Your task to perform on an android device: Open Google Chrome and click the shortcut for Amazon.com Image 0: 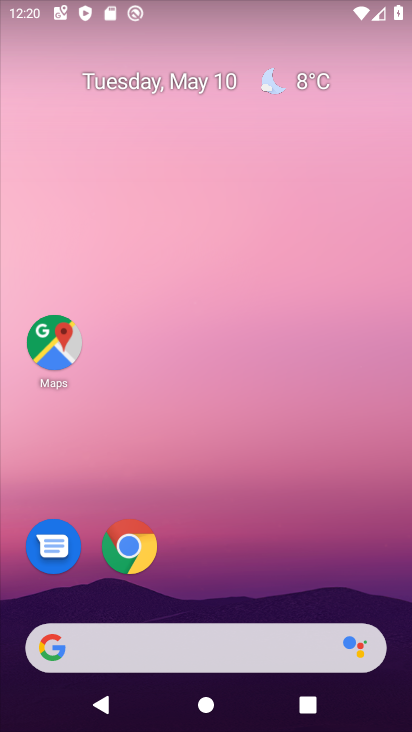
Step 0: drag from (317, 507) to (36, 30)
Your task to perform on an android device: Open Google Chrome and click the shortcut for Amazon.com Image 1: 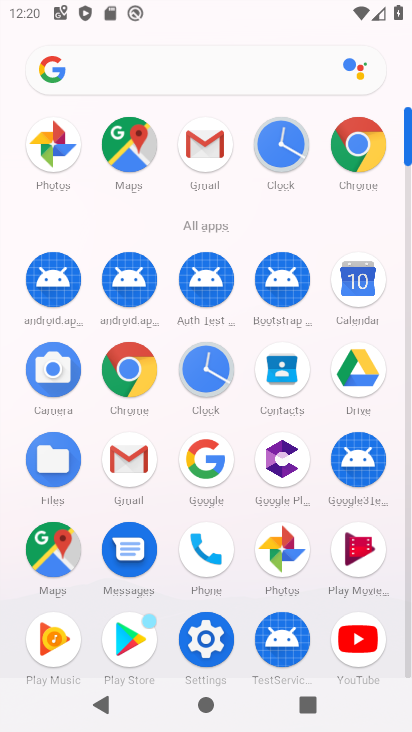
Step 1: click (129, 364)
Your task to perform on an android device: Open Google Chrome and click the shortcut for Amazon.com Image 2: 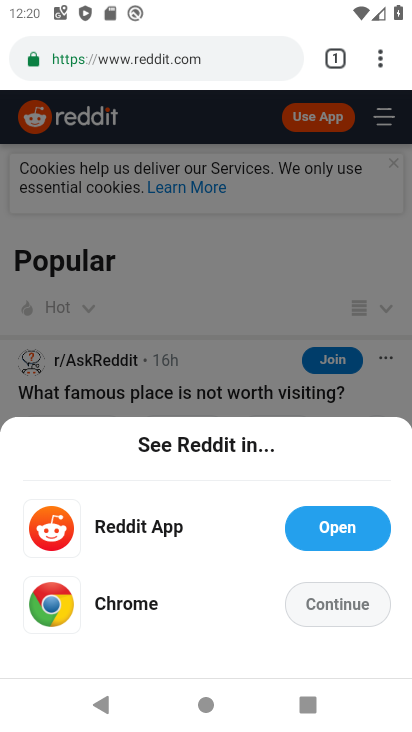
Step 2: click (375, 53)
Your task to perform on an android device: Open Google Chrome and click the shortcut for Amazon.com Image 3: 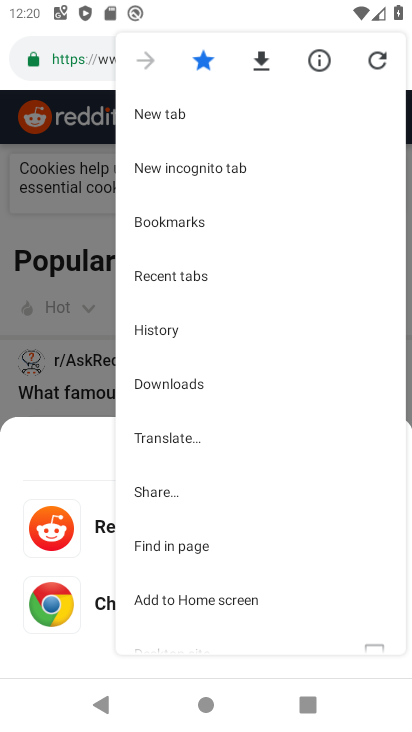
Step 3: click (171, 110)
Your task to perform on an android device: Open Google Chrome and click the shortcut for Amazon.com Image 4: 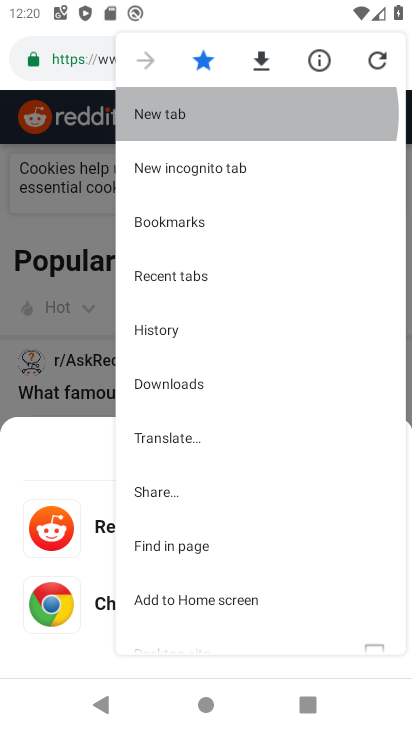
Step 4: click (171, 110)
Your task to perform on an android device: Open Google Chrome and click the shortcut for Amazon.com Image 5: 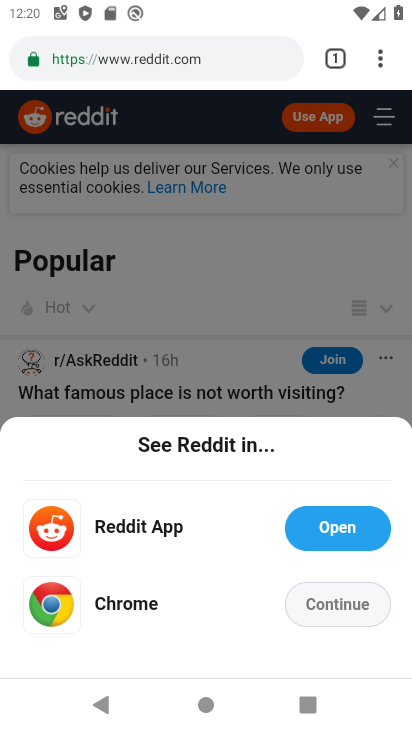
Step 5: click (171, 110)
Your task to perform on an android device: Open Google Chrome and click the shortcut for Amazon.com Image 6: 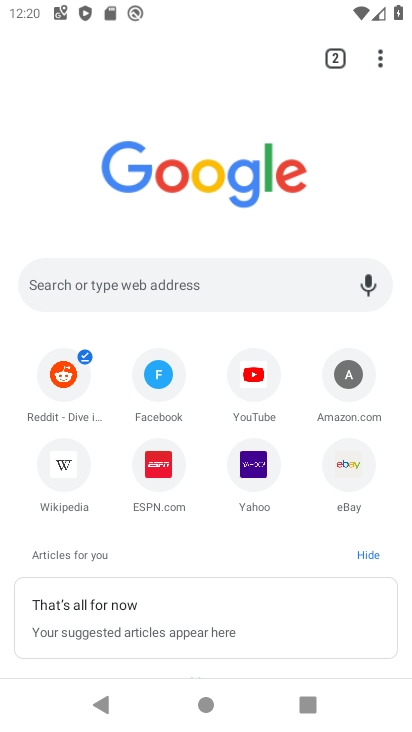
Step 6: click (171, 110)
Your task to perform on an android device: Open Google Chrome and click the shortcut for Amazon.com Image 7: 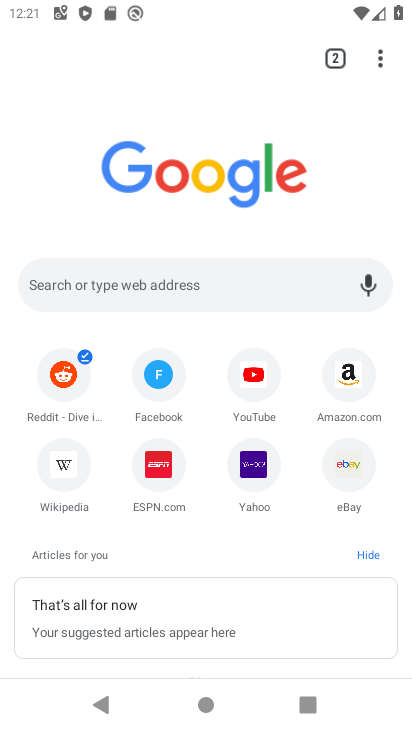
Step 7: click (348, 375)
Your task to perform on an android device: Open Google Chrome and click the shortcut for Amazon.com Image 8: 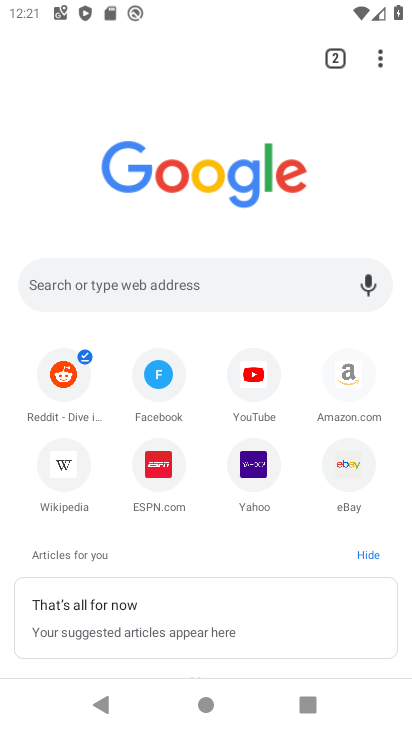
Step 8: click (348, 375)
Your task to perform on an android device: Open Google Chrome and click the shortcut for Amazon.com Image 9: 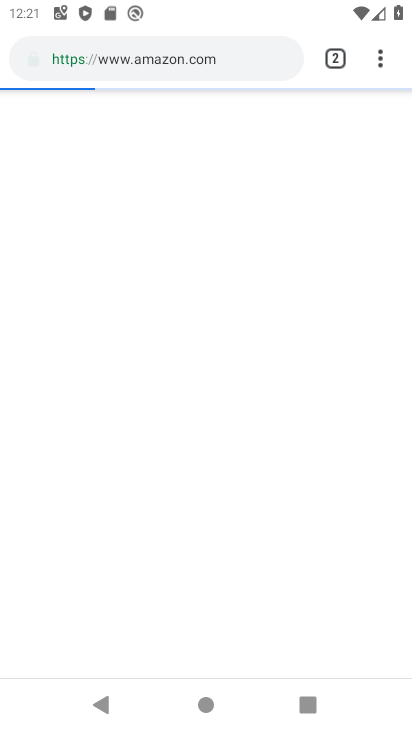
Step 9: click (348, 375)
Your task to perform on an android device: Open Google Chrome and click the shortcut for Amazon.com Image 10: 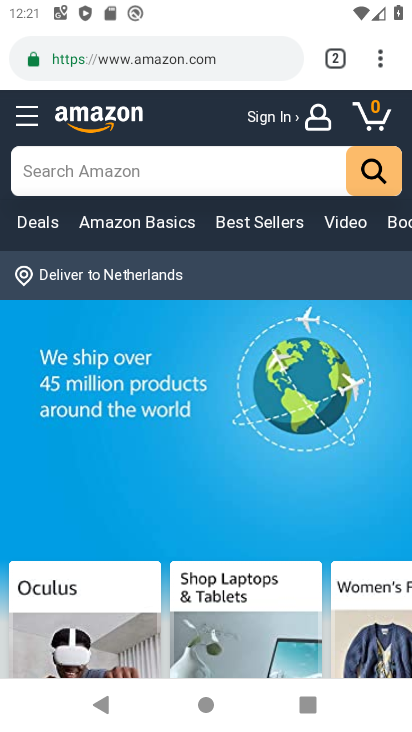
Step 10: task complete